Your task to perform on an android device: Go to notification settings Image 0: 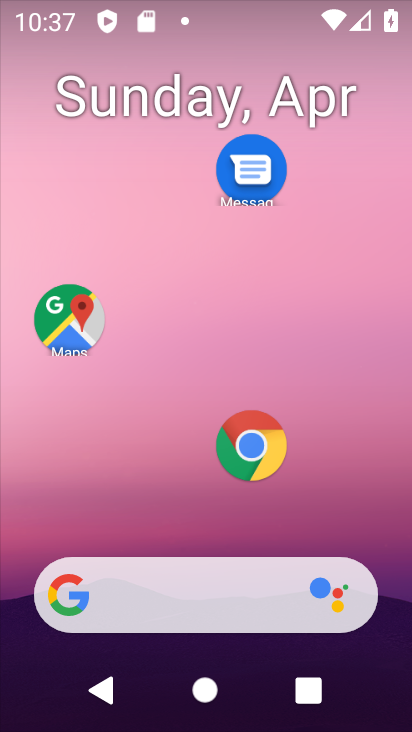
Step 0: drag from (177, 610) to (346, 57)
Your task to perform on an android device: Go to notification settings Image 1: 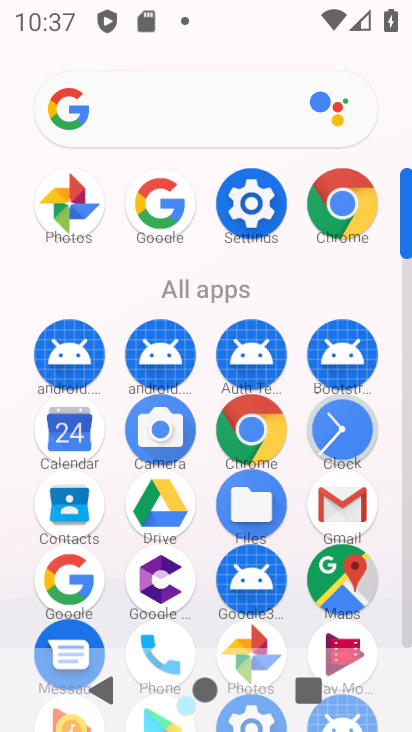
Step 1: click (269, 209)
Your task to perform on an android device: Go to notification settings Image 2: 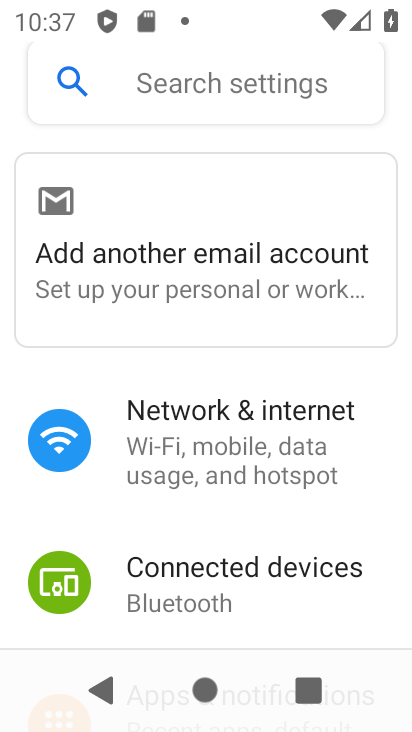
Step 2: drag from (202, 549) to (328, 165)
Your task to perform on an android device: Go to notification settings Image 3: 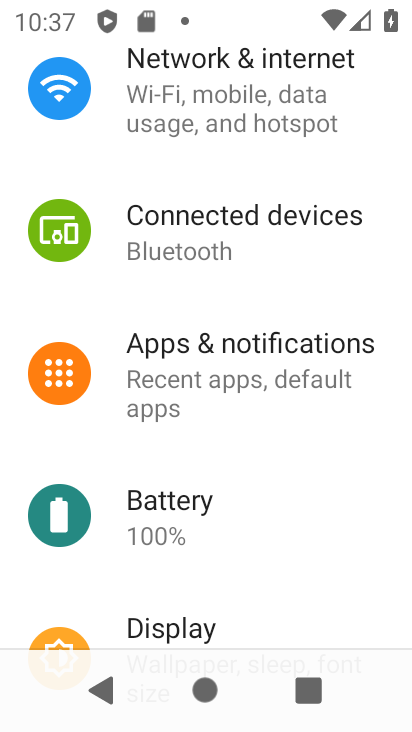
Step 3: click (275, 371)
Your task to perform on an android device: Go to notification settings Image 4: 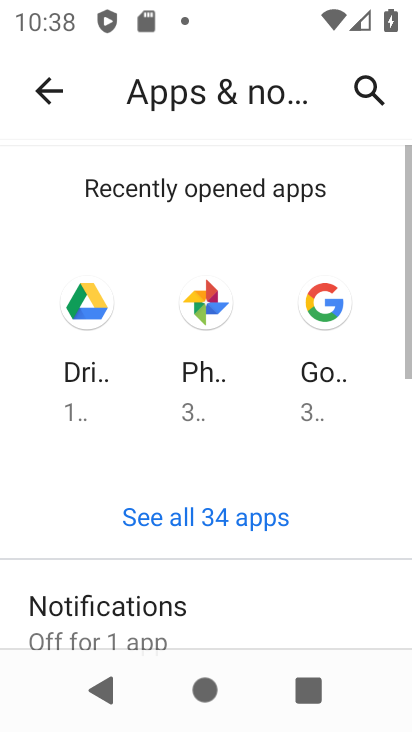
Step 4: drag from (177, 569) to (273, 279)
Your task to perform on an android device: Go to notification settings Image 5: 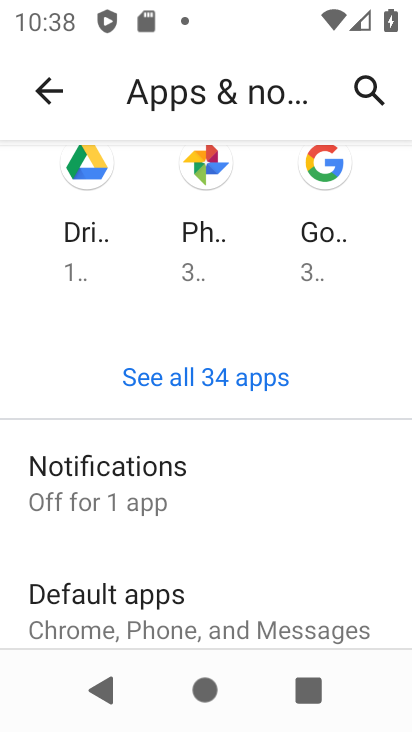
Step 5: click (113, 505)
Your task to perform on an android device: Go to notification settings Image 6: 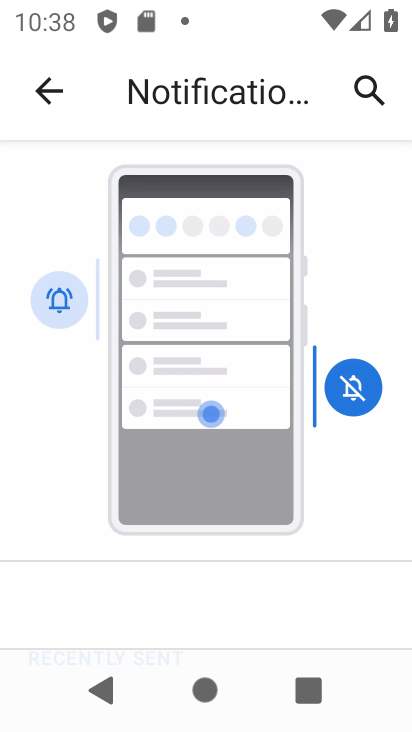
Step 6: task complete